Your task to perform on an android device: What is the news today? Image 0: 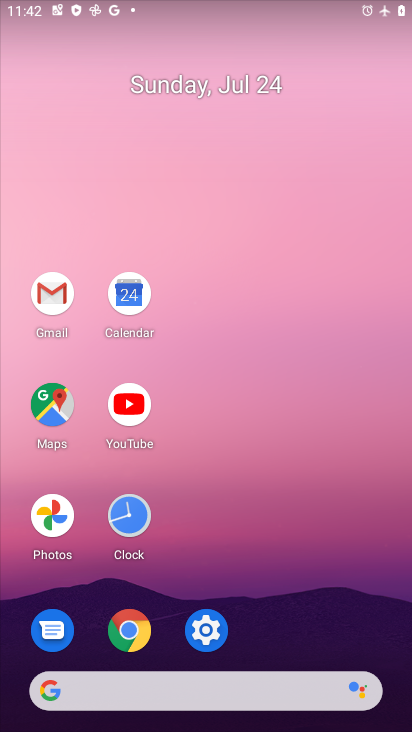
Step 0: drag from (15, 183) to (364, 245)
Your task to perform on an android device: What is the news today? Image 1: 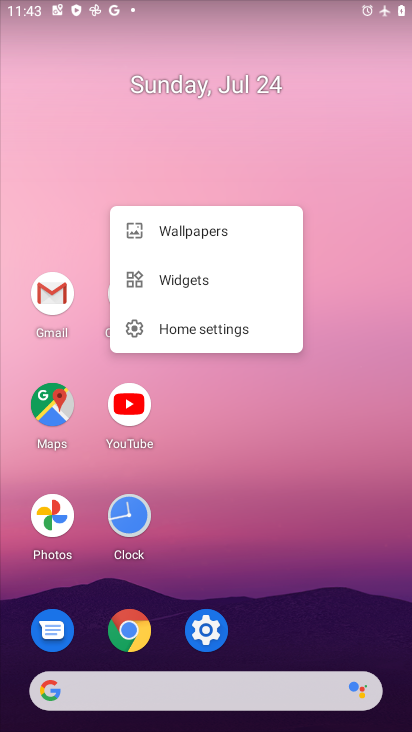
Step 1: click (151, 182)
Your task to perform on an android device: What is the news today? Image 2: 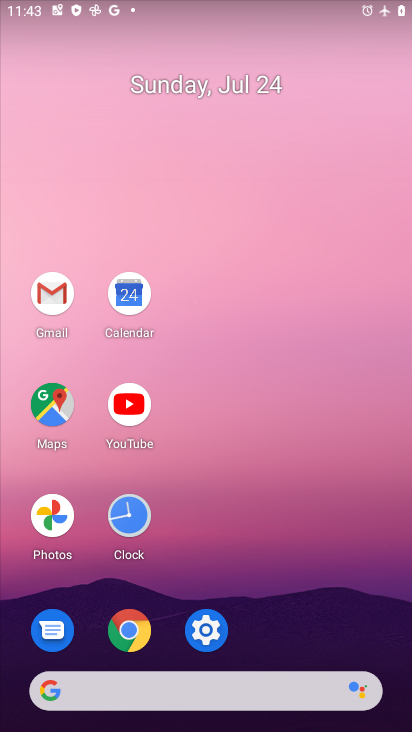
Step 2: drag from (23, 198) to (358, 209)
Your task to perform on an android device: What is the news today? Image 3: 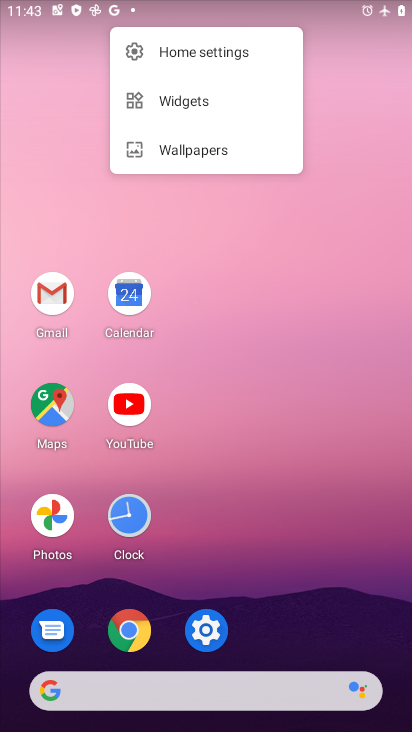
Step 3: click (358, 209)
Your task to perform on an android device: What is the news today? Image 4: 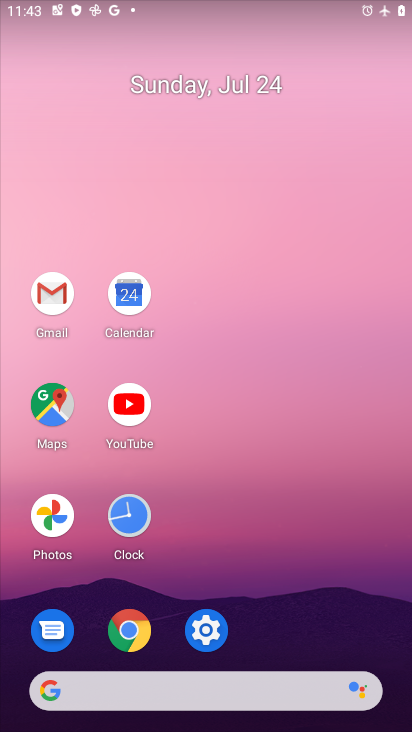
Step 4: task complete